Your task to perform on an android device: What is the news today? Image 0: 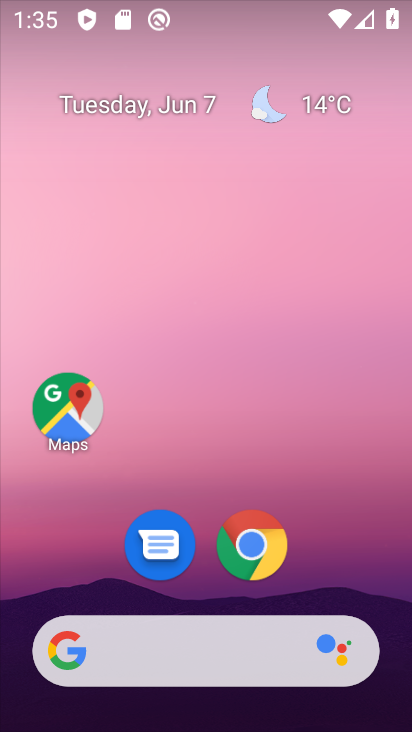
Step 0: drag from (331, 514) to (268, 240)
Your task to perform on an android device: What is the news today? Image 1: 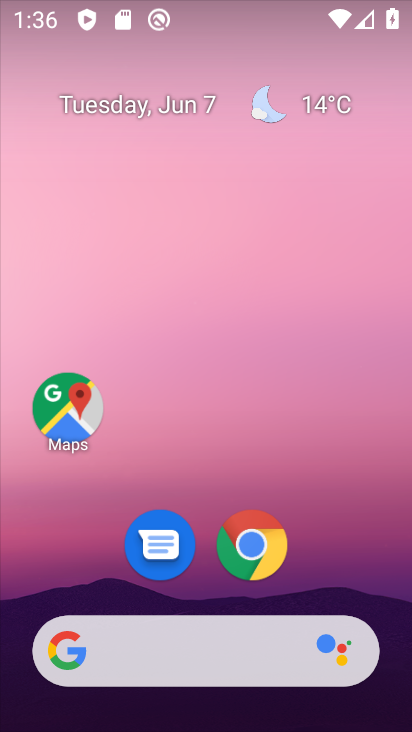
Step 1: drag from (371, 560) to (177, 23)
Your task to perform on an android device: What is the news today? Image 2: 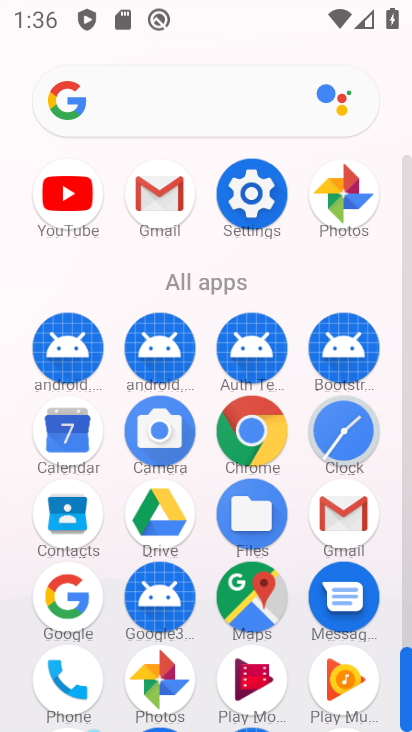
Step 2: click (74, 612)
Your task to perform on an android device: What is the news today? Image 3: 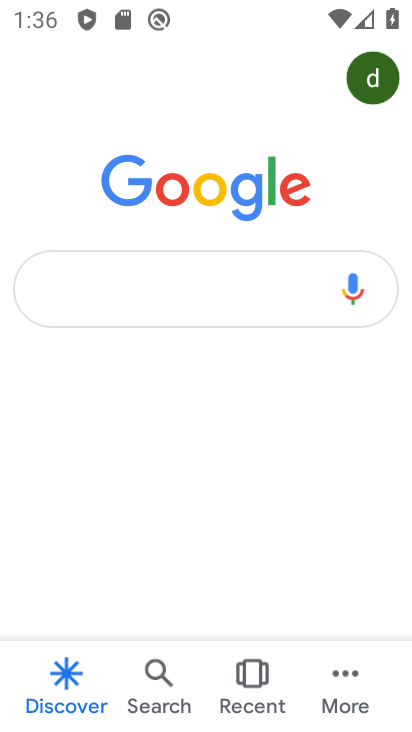
Step 3: click (205, 290)
Your task to perform on an android device: What is the news today? Image 4: 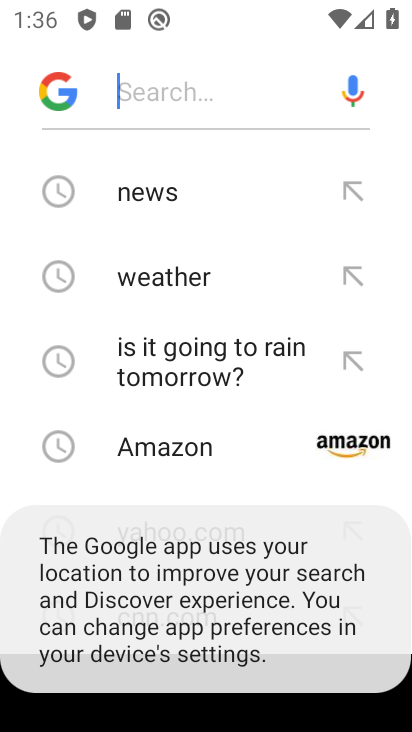
Step 4: click (187, 189)
Your task to perform on an android device: What is the news today? Image 5: 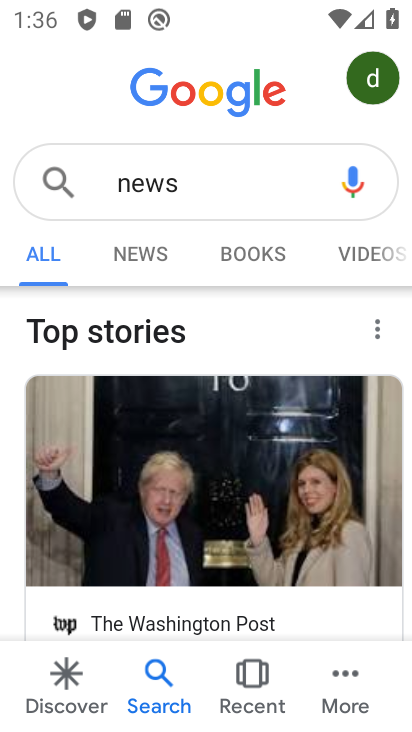
Step 5: task complete